Your task to perform on an android device: toggle notification dots Image 0: 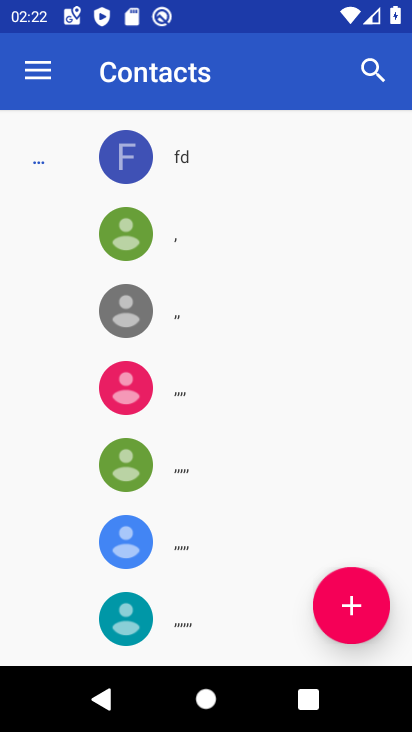
Step 0: drag from (214, 592) to (225, 228)
Your task to perform on an android device: toggle notification dots Image 1: 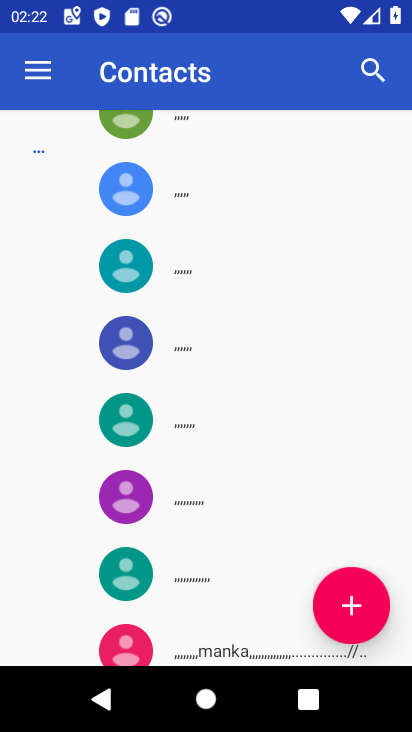
Step 1: press home button
Your task to perform on an android device: toggle notification dots Image 2: 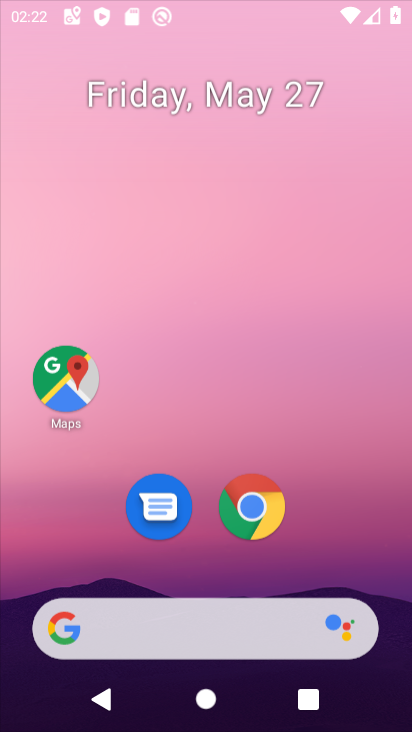
Step 2: drag from (146, 557) to (228, 4)
Your task to perform on an android device: toggle notification dots Image 3: 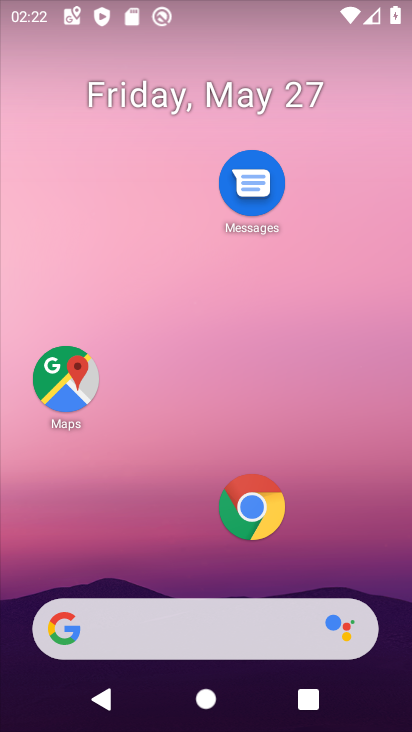
Step 3: drag from (181, 524) to (334, 7)
Your task to perform on an android device: toggle notification dots Image 4: 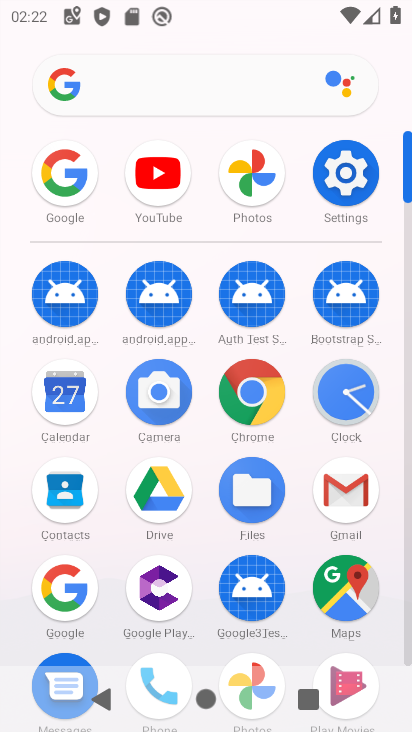
Step 4: click (358, 166)
Your task to perform on an android device: toggle notification dots Image 5: 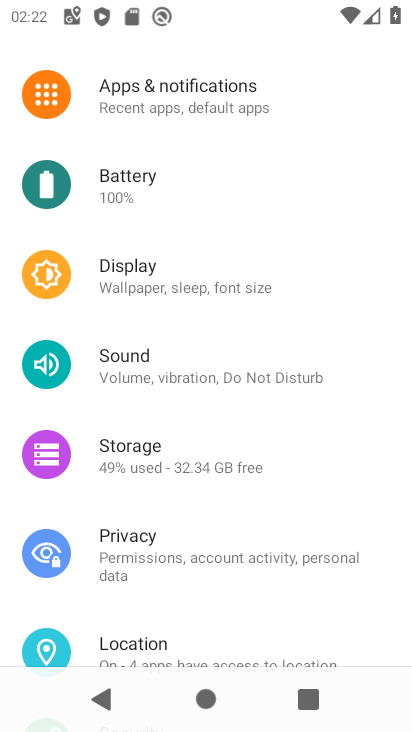
Step 5: click (177, 114)
Your task to perform on an android device: toggle notification dots Image 6: 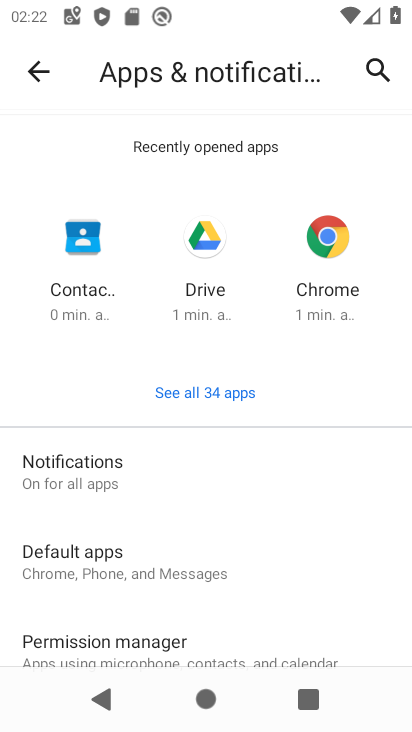
Step 6: drag from (227, 564) to (276, 185)
Your task to perform on an android device: toggle notification dots Image 7: 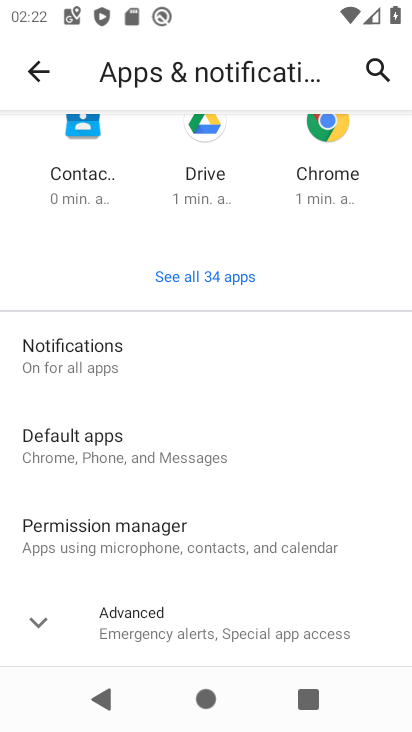
Step 7: click (115, 357)
Your task to perform on an android device: toggle notification dots Image 8: 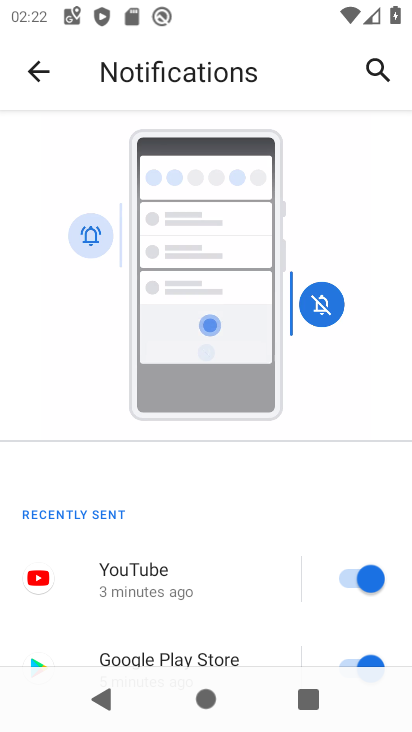
Step 8: drag from (234, 611) to (315, 6)
Your task to perform on an android device: toggle notification dots Image 9: 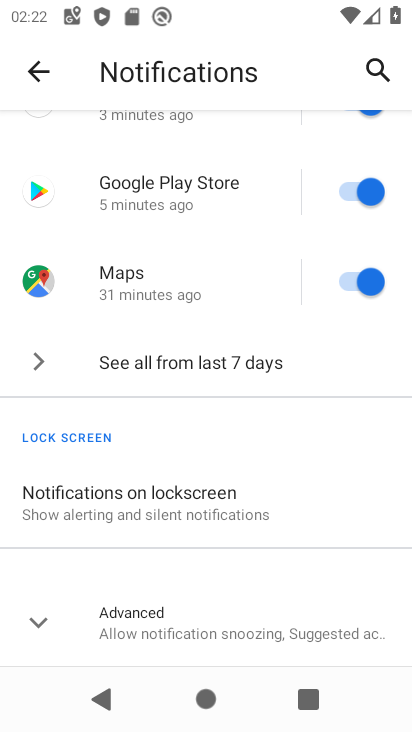
Step 9: click (159, 625)
Your task to perform on an android device: toggle notification dots Image 10: 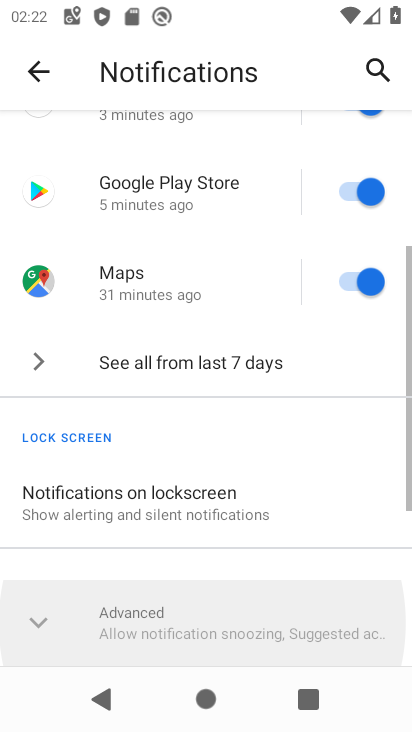
Step 10: drag from (208, 595) to (333, 123)
Your task to perform on an android device: toggle notification dots Image 11: 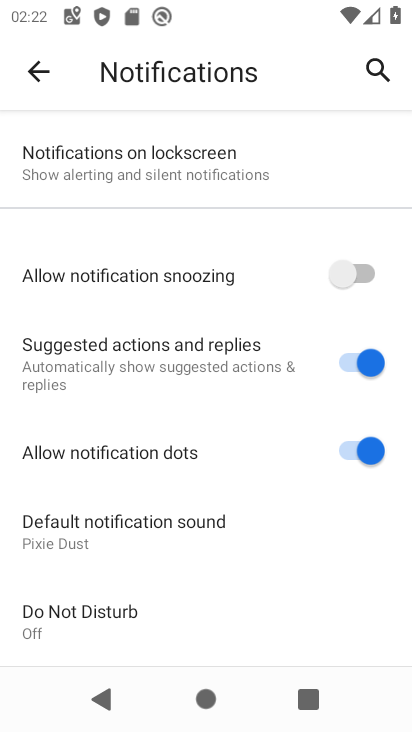
Step 11: click (353, 452)
Your task to perform on an android device: toggle notification dots Image 12: 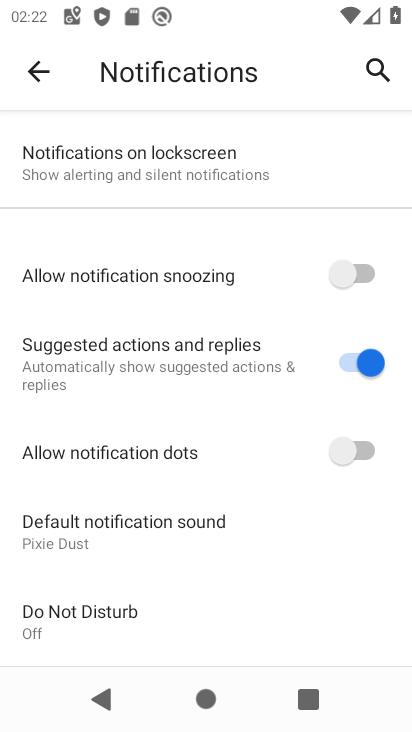
Step 12: task complete